Your task to perform on an android device: turn off location history Image 0: 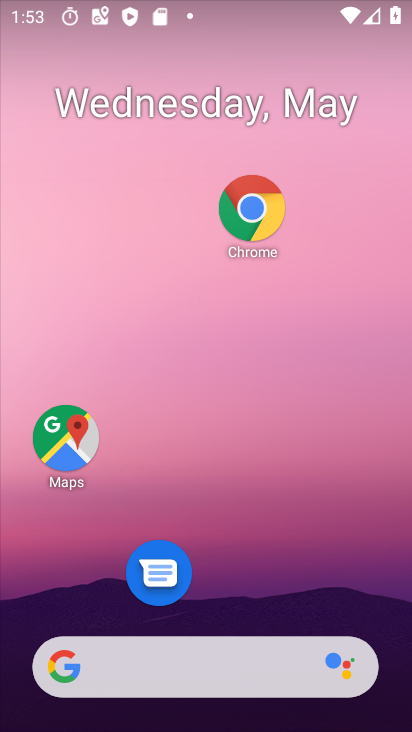
Step 0: drag from (247, 509) to (242, 21)
Your task to perform on an android device: turn off location history Image 1: 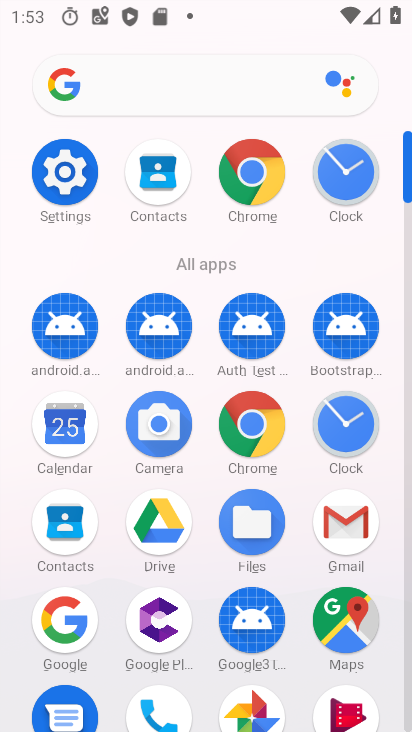
Step 1: click (42, 174)
Your task to perform on an android device: turn off location history Image 2: 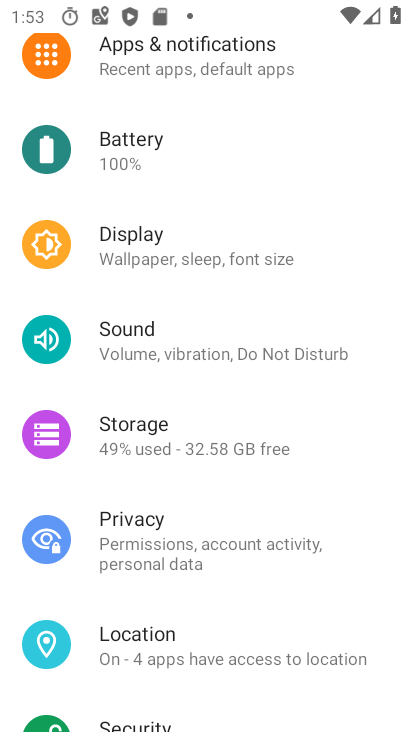
Step 2: click (194, 643)
Your task to perform on an android device: turn off location history Image 3: 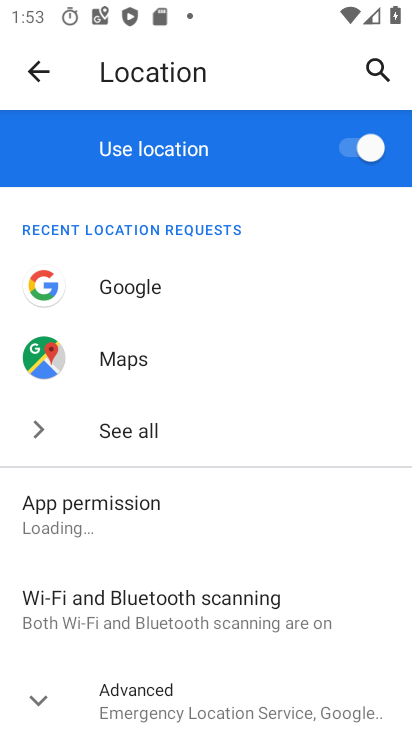
Step 3: click (139, 703)
Your task to perform on an android device: turn off location history Image 4: 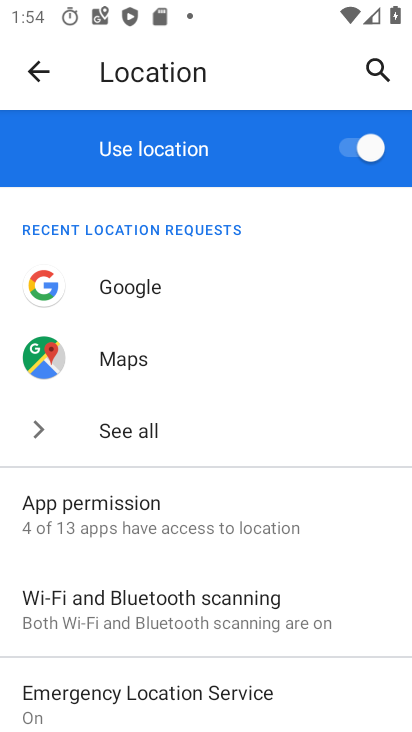
Step 4: drag from (139, 703) to (215, 251)
Your task to perform on an android device: turn off location history Image 5: 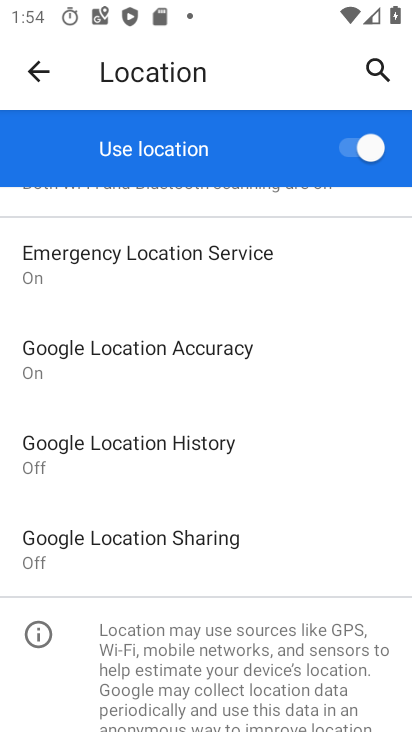
Step 5: click (198, 441)
Your task to perform on an android device: turn off location history Image 6: 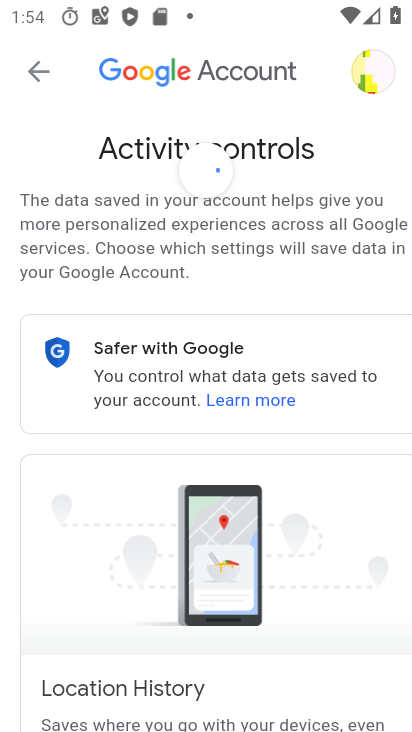
Step 6: task complete